Your task to perform on an android device: Go to calendar. Show me events next week Image 0: 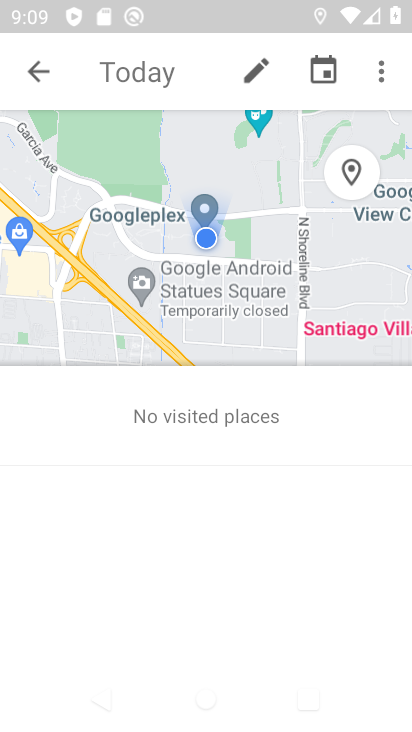
Step 0: press back button
Your task to perform on an android device: Go to calendar. Show me events next week Image 1: 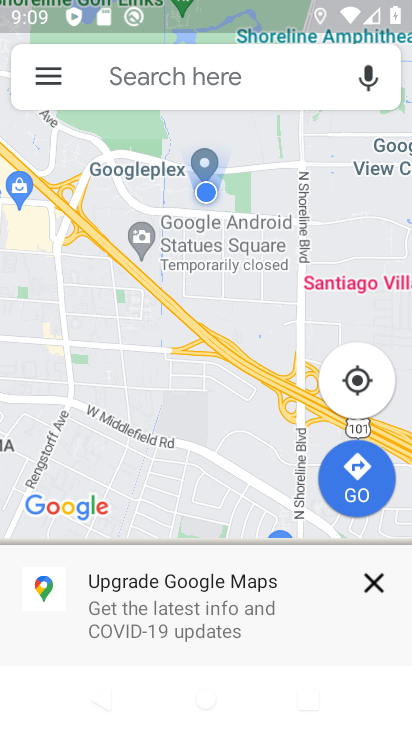
Step 1: press back button
Your task to perform on an android device: Go to calendar. Show me events next week Image 2: 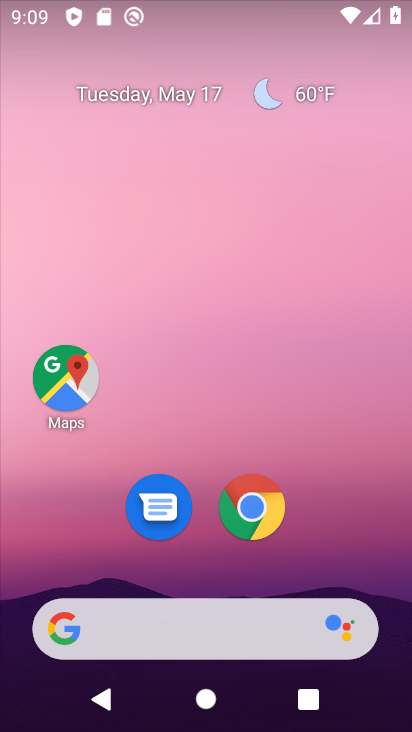
Step 2: press home button
Your task to perform on an android device: Go to calendar. Show me events next week Image 3: 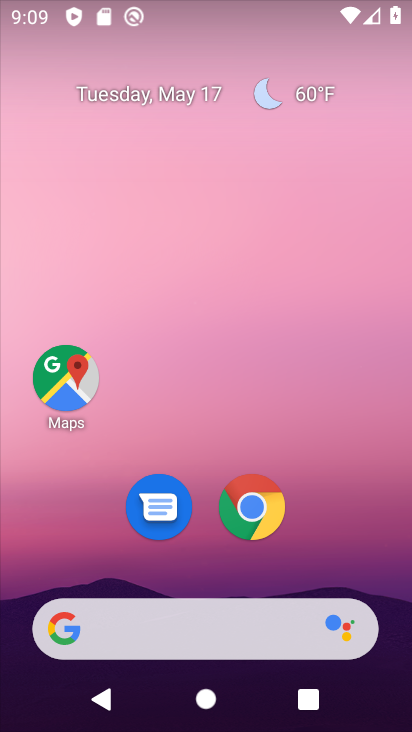
Step 3: drag from (266, 672) to (222, 277)
Your task to perform on an android device: Go to calendar. Show me events next week Image 4: 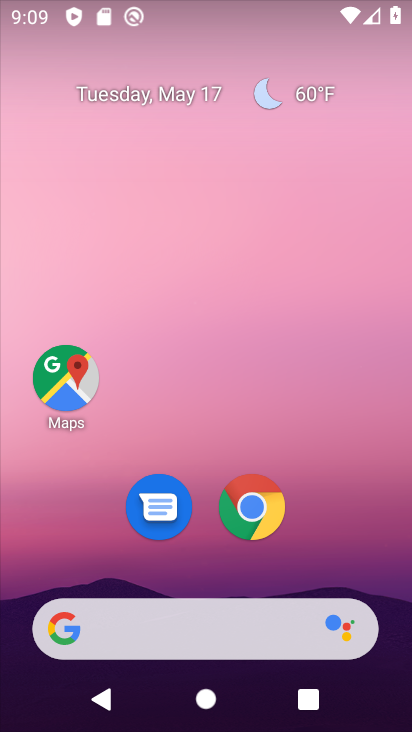
Step 4: drag from (245, 387) to (225, 210)
Your task to perform on an android device: Go to calendar. Show me events next week Image 5: 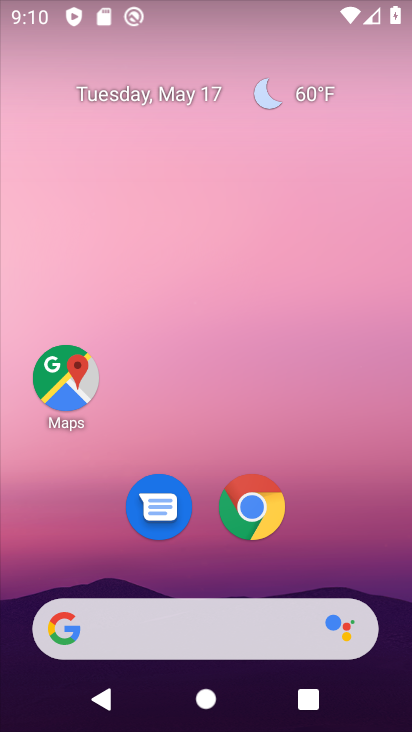
Step 5: drag from (246, 648) to (191, 188)
Your task to perform on an android device: Go to calendar. Show me events next week Image 6: 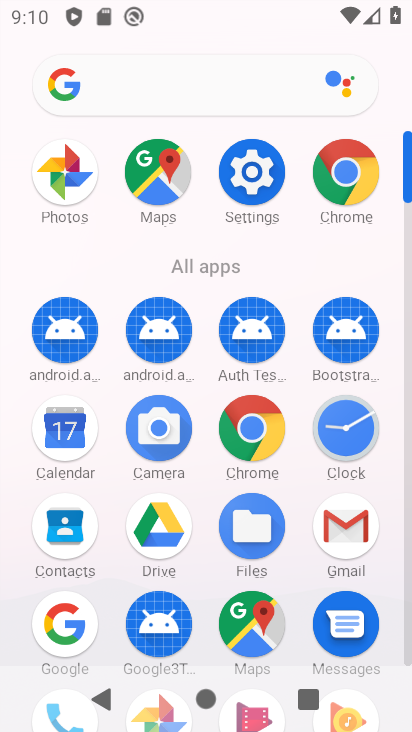
Step 6: click (69, 434)
Your task to perform on an android device: Go to calendar. Show me events next week Image 7: 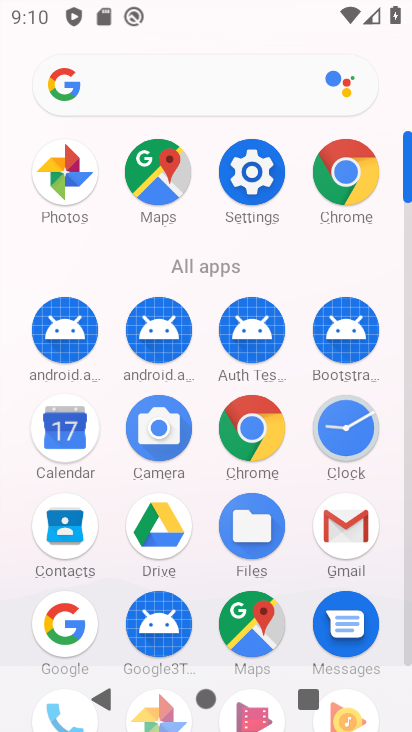
Step 7: click (67, 433)
Your task to perform on an android device: Go to calendar. Show me events next week Image 8: 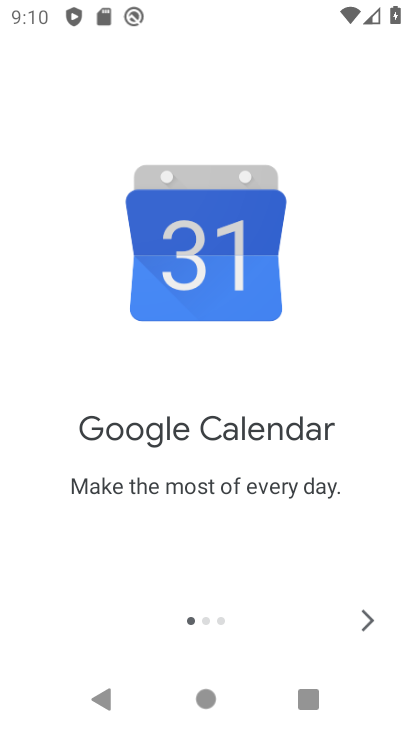
Step 8: click (362, 614)
Your task to perform on an android device: Go to calendar. Show me events next week Image 9: 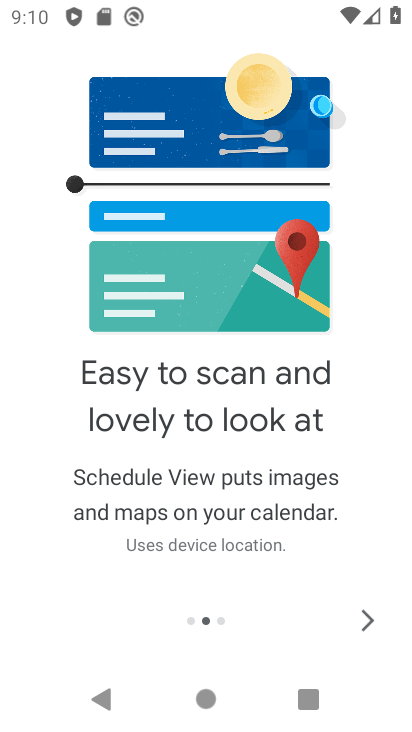
Step 9: click (364, 616)
Your task to perform on an android device: Go to calendar. Show me events next week Image 10: 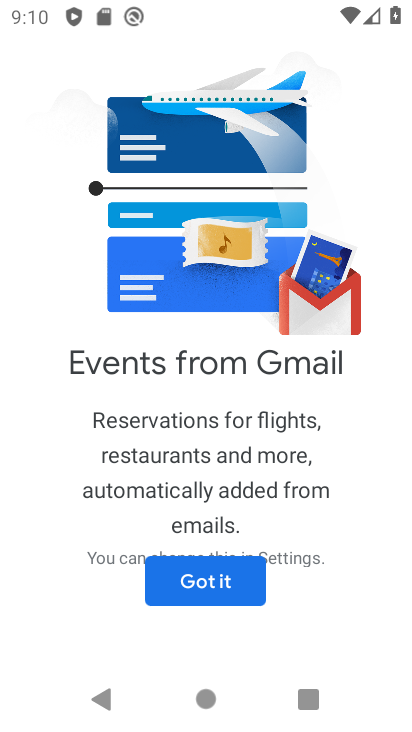
Step 10: click (244, 584)
Your task to perform on an android device: Go to calendar. Show me events next week Image 11: 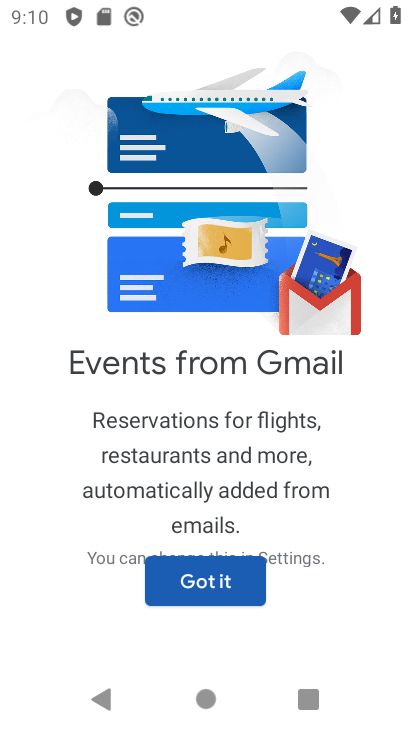
Step 11: click (241, 579)
Your task to perform on an android device: Go to calendar. Show me events next week Image 12: 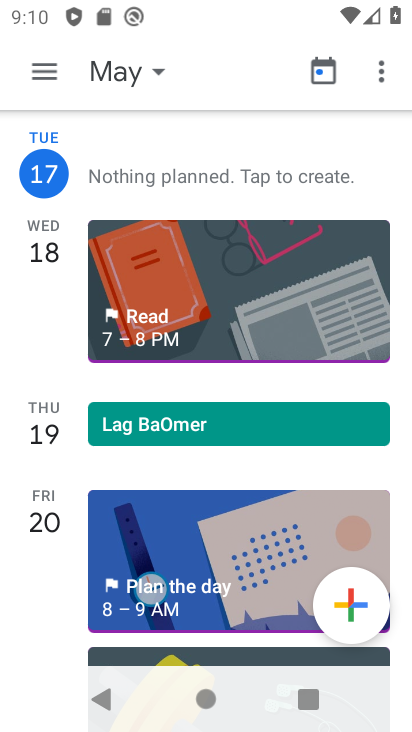
Step 12: click (154, 61)
Your task to perform on an android device: Go to calendar. Show me events next week Image 13: 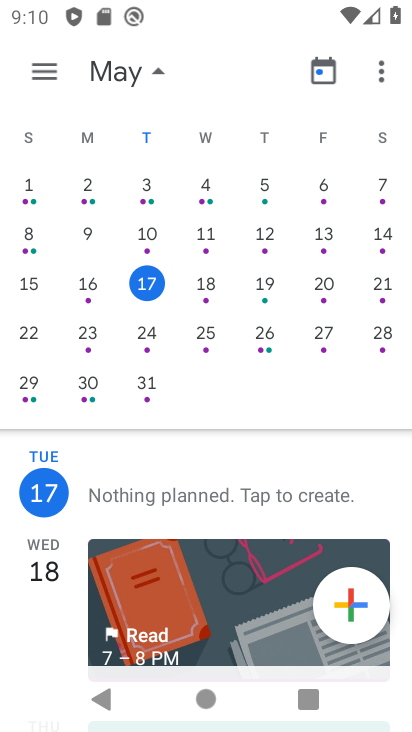
Step 13: click (152, 337)
Your task to perform on an android device: Go to calendar. Show me events next week Image 14: 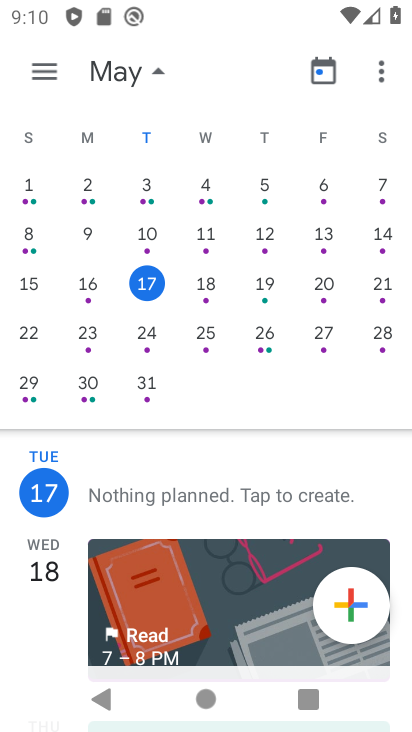
Step 14: click (152, 337)
Your task to perform on an android device: Go to calendar. Show me events next week Image 15: 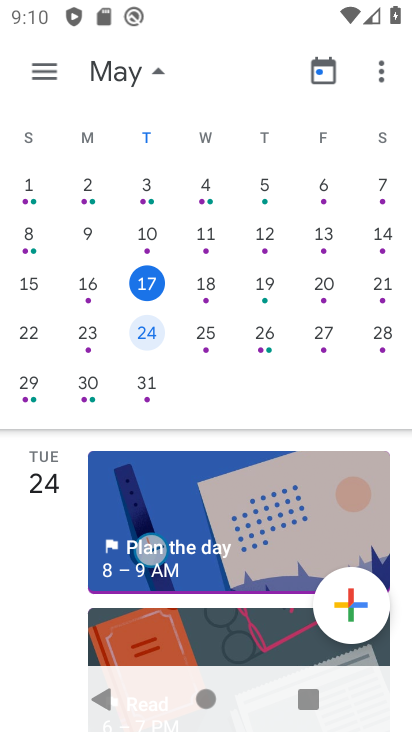
Step 15: click (152, 335)
Your task to perform on an android device: Go to calendar. Show me events next week Image 16: 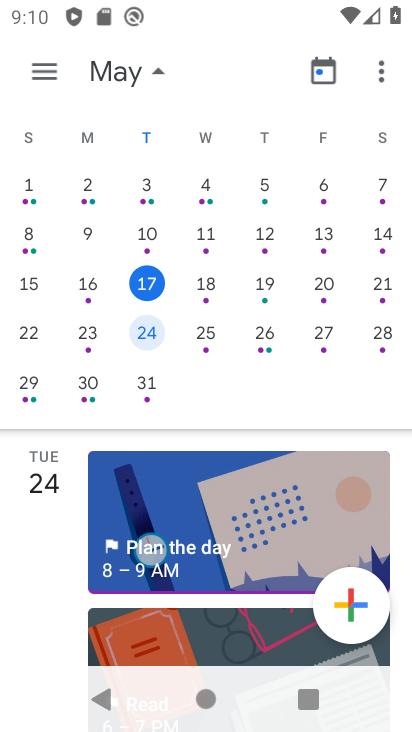
Step 16: click (152, 332)
Your task to perform on an android device: Go to calendar. Show me events next week Image 17: 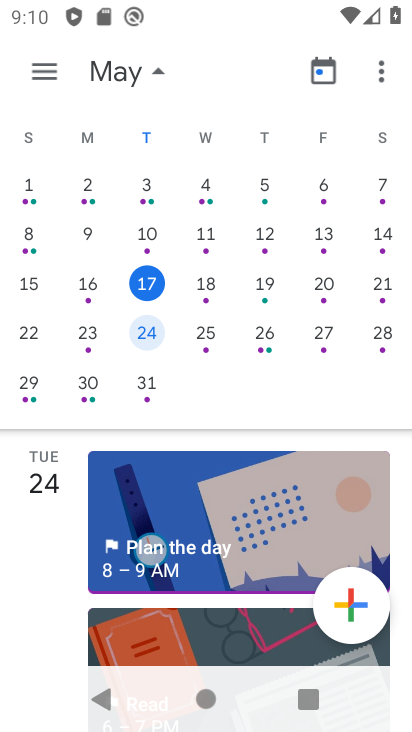
Step 17: click (226, 557)
Your task to perform on an android device: Go to calendar. Show me events next week Image 18: 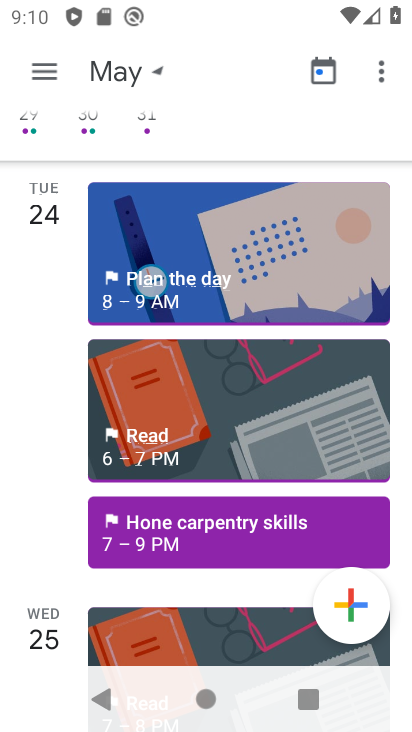
Step 18: click (147, 336)
Your task to perform on an android device: Go to calendar. Show me events next week Image 19: 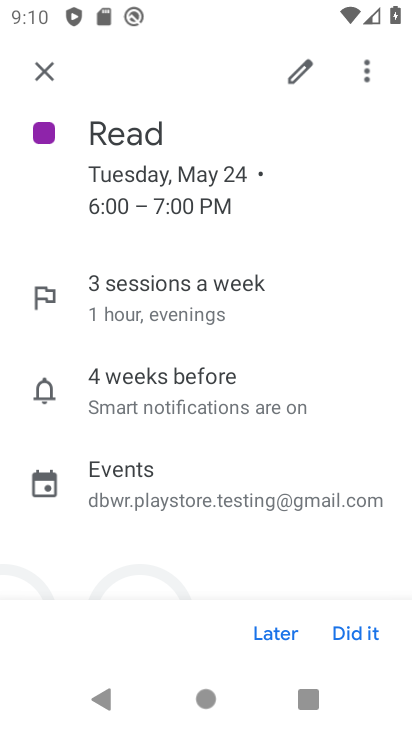
Step 19: click (148, 335)
Your task to perform on an android device: Go to calendar. Show me events next week Image 20: 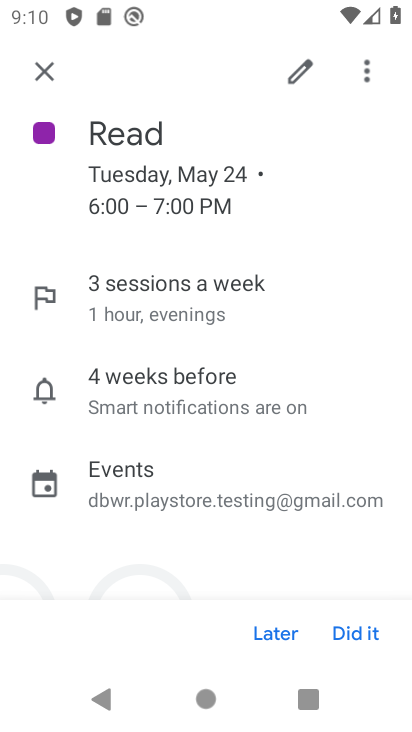
Step 20: click (148, 335)
Your task to perform on an android device: Go to calendar. Show me events next week Image 21: 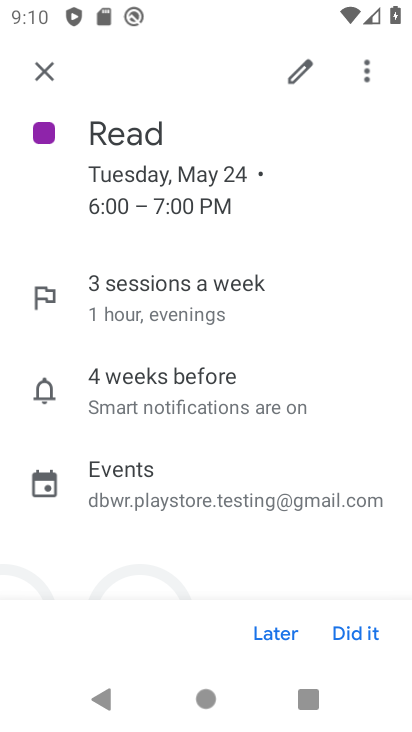
Step 21: task complete